Your task to perform on an android device: What's the weather? Image 0: 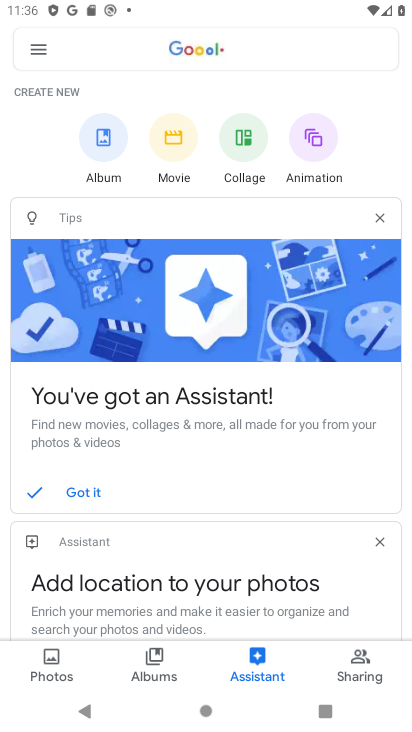
Step 0: press home button
Your task to perform on an android device: What's the weather? Image 1: 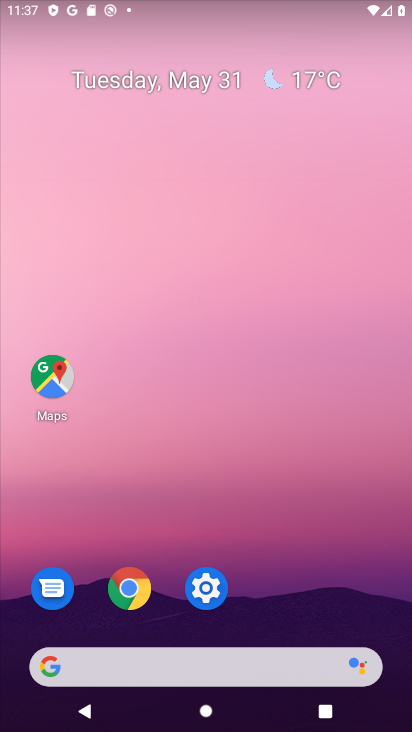
Step 1: click (166, 665)
Your task to perform on an android device: What's the weather? Image 2: 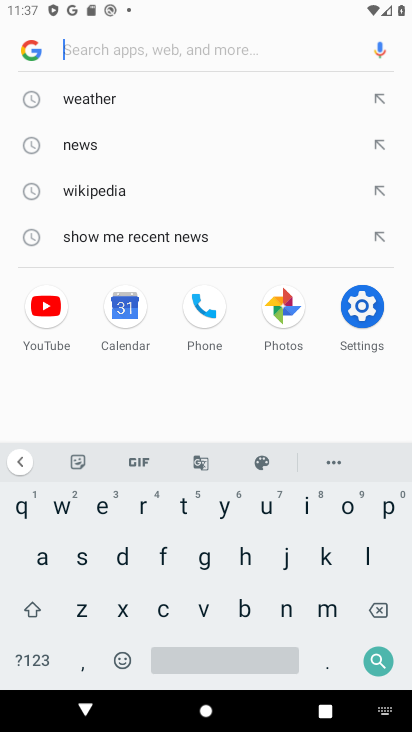
Step 2: click (100, 105)
Your task to perform on an android device: What's the weather? Image 3: 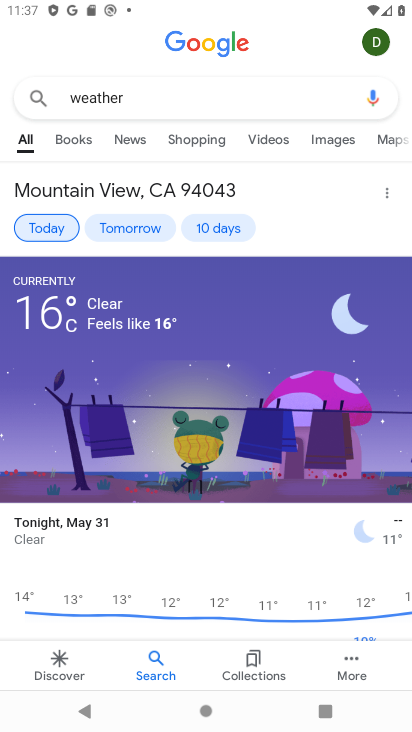
Step 3: task complete